Your task to perform on an android device: open app "Google Pay: Save, Pay, Manage" Image 0: 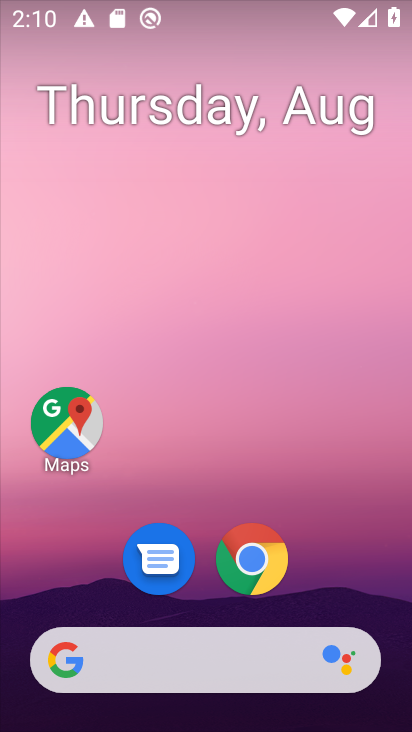
Step 0: drag from (69, 547) to (159, 77)
Your task to perform on an android device: open app "Google Pay: Save, Pay, Manage" Image 1: 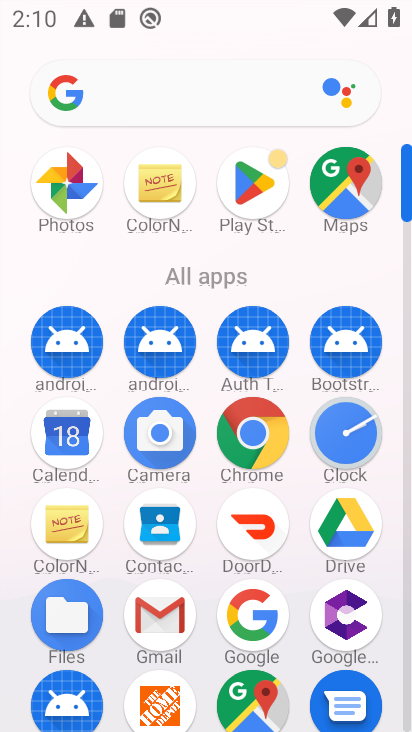
Step 1: click (251, 190)
Your task to perform on an android device: open app "Google Pay: Save, Pay, Manage" Image 2: 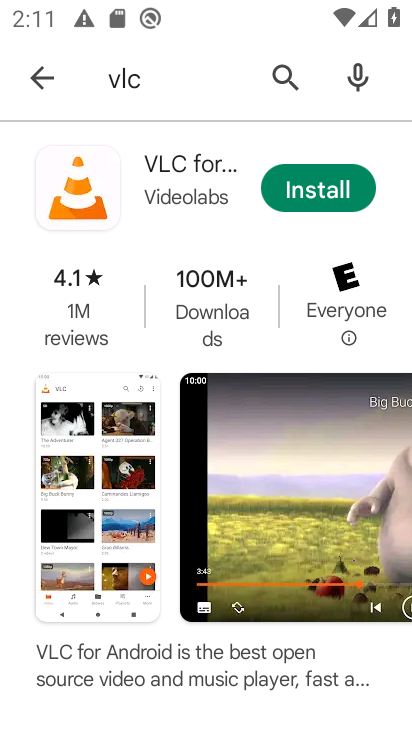
Step 2: click (273, 75)
Your task to perform on an android device: open app "Google Pay: Save, Pay, Manage" Image 3: 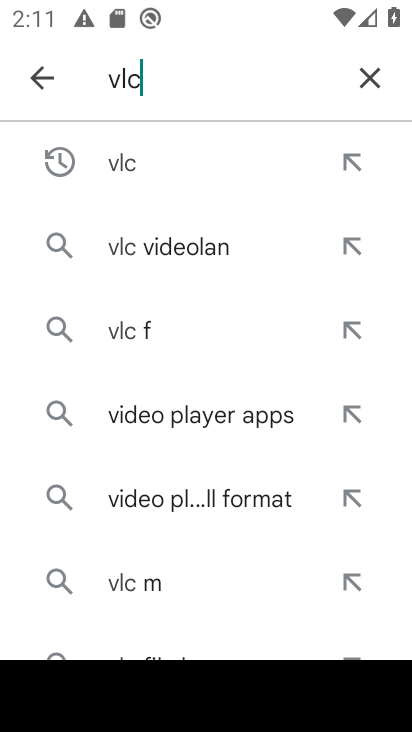
Step 3: click (378, 71)
Your task to perform on an android device: open app "Google Pay: Save, Pay, Manage" Image 4: 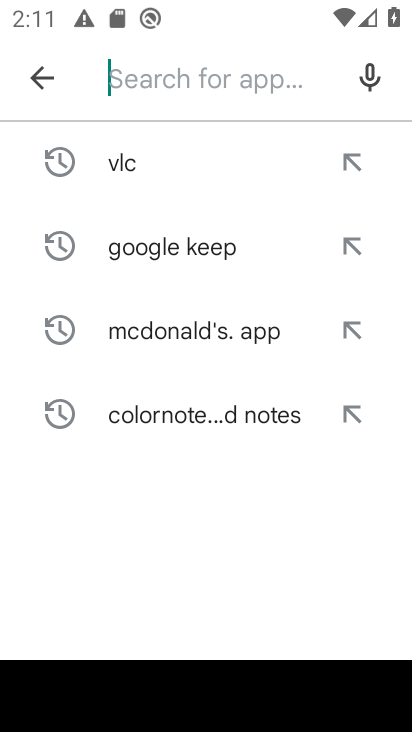
Step 4: type "google pay"
Your task to perform on an android device: open app "Google Pay: Save, Pay, Manage" Image 5: 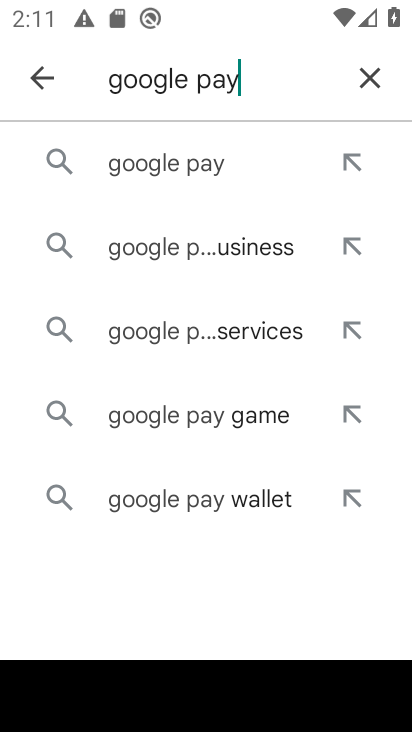
Step 5: click (157, 166)
Your task to perform on an android device: open app "Google Pay: Save, Pay, Manage" Image 6: 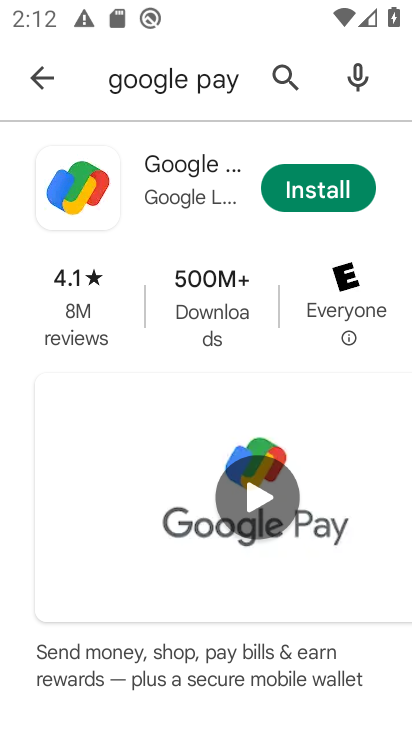
Step 6: task complete